Your task to perform on an android device: change notifications settings Image 0: 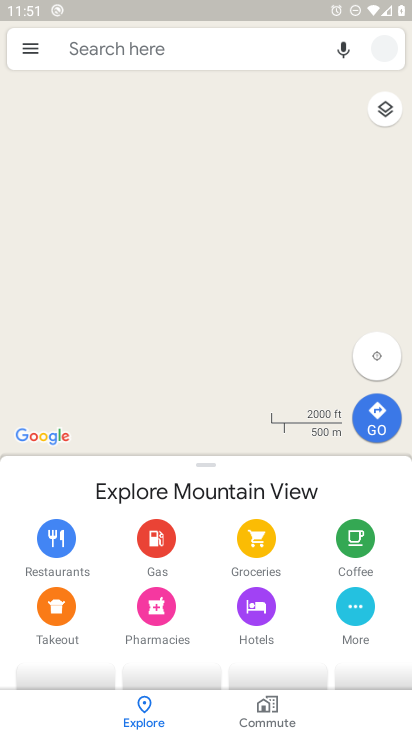
Step 0: press home button
Your task to perform on an android device: change notifications settings Image 1: 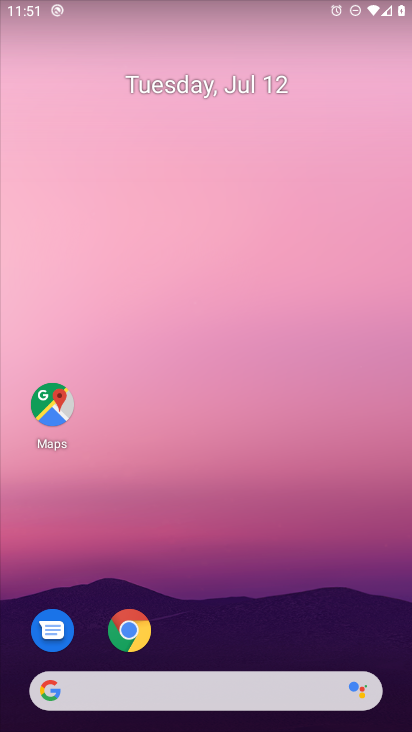
Step 1: press home button
Your task to perform on an android device: change notifications settings Image 2: 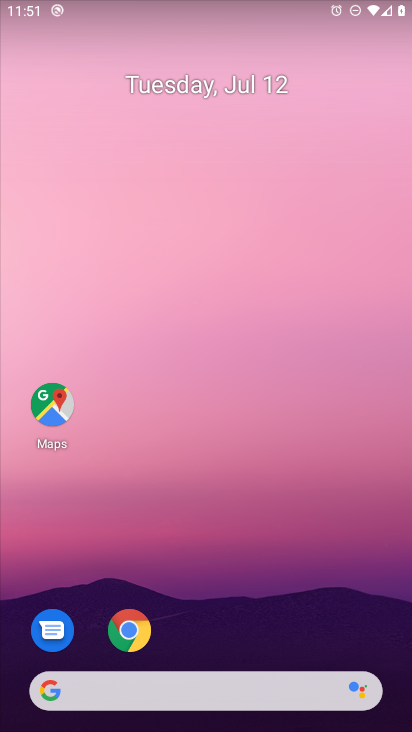
Step 2: drag from (314, 552) to (349, 80)
Your task to perform on an android device: change notifications settings Image 3: 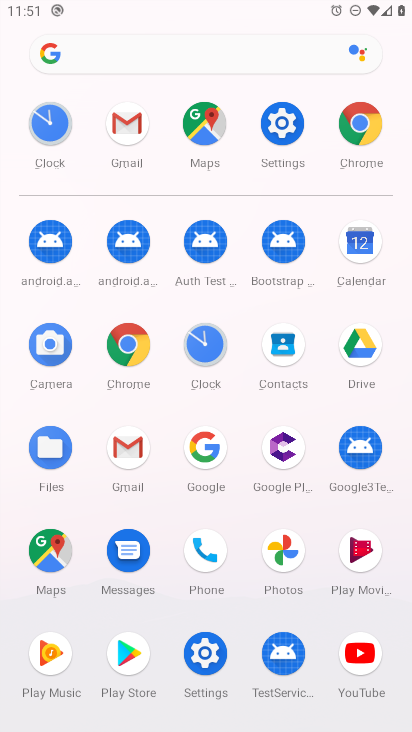
Step 3: click (282, 133)
Your task to perform on an android device: change notifications settings Image 4: 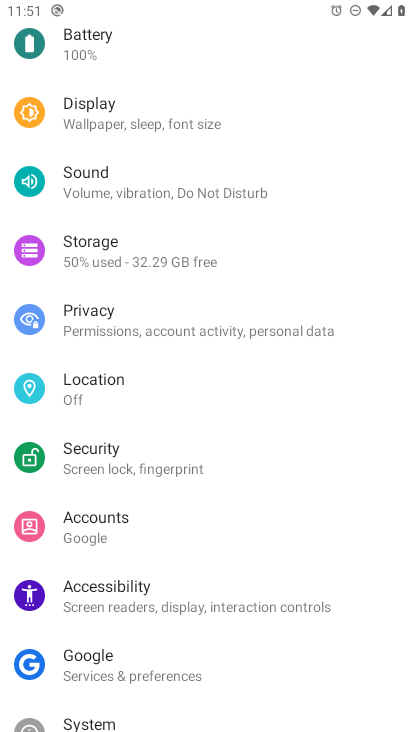
Step 4: drag from (153, 79) to (143, 498)
Your task to perform on an android device: change notifications settings Image 5: 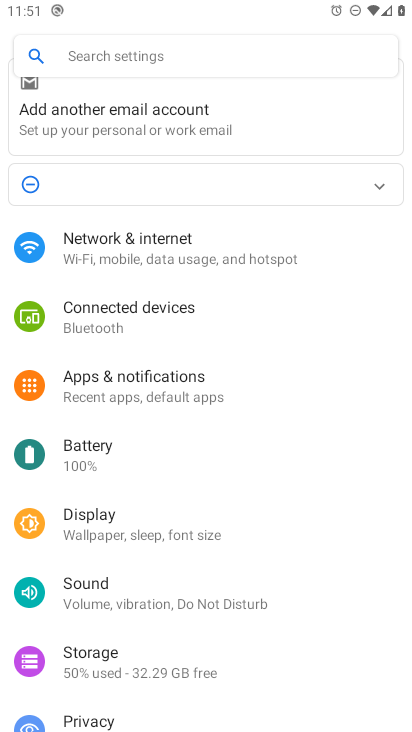
Step 5: click (103, 374)
Your task to perform on an android device: change notifications settings Image 6: 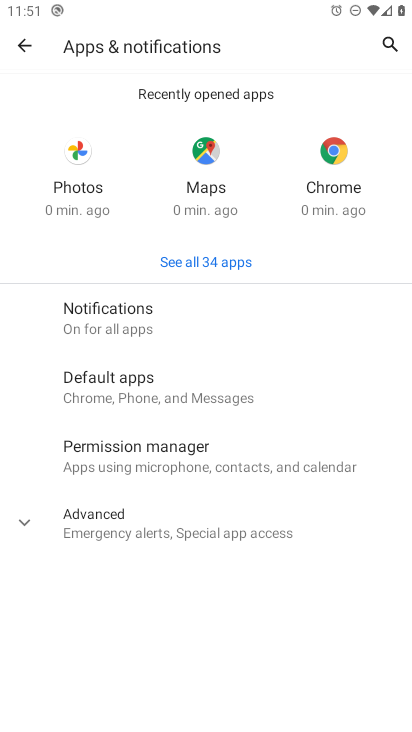
Step 6: click (109, 315)
Your task to perform on an android device: change notifications settings Image 7: 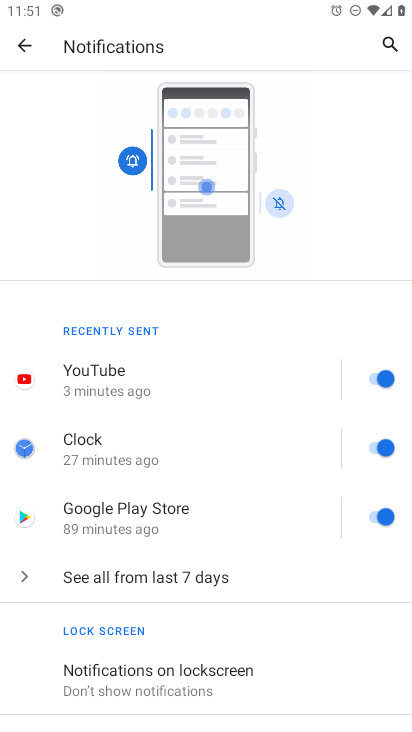
Step 7: drag from (299, 626) to (297, 265)
Your task to perform on an android device: change notifications settings Image 8: 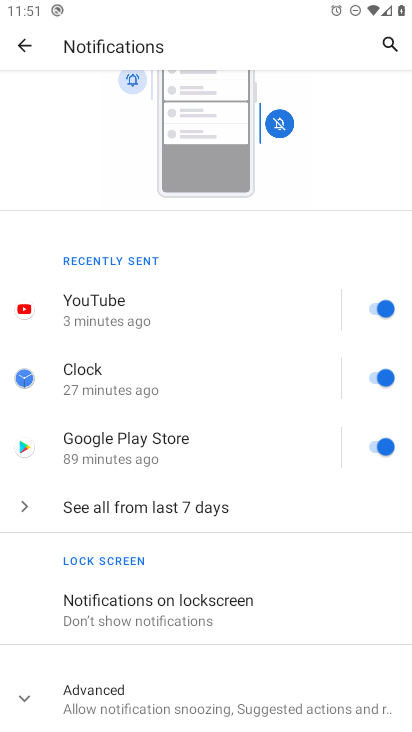
Step 8: click (135, 81)
Your task to perform on an android device: change notifications settings Image 9: 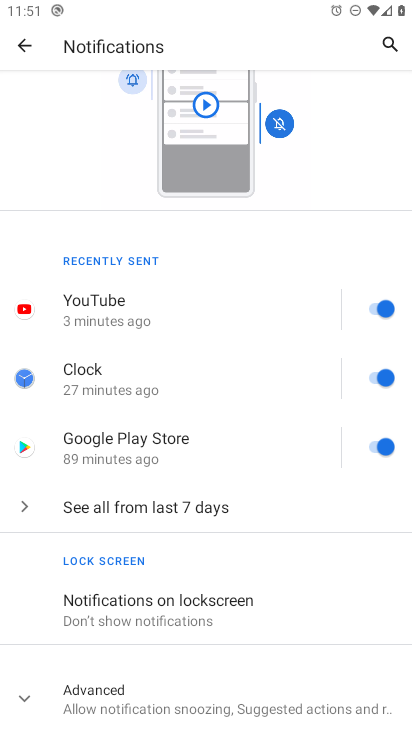
Step 9: click (131, 79)
Your task to perform on an android device: change notifications settings Image 10: 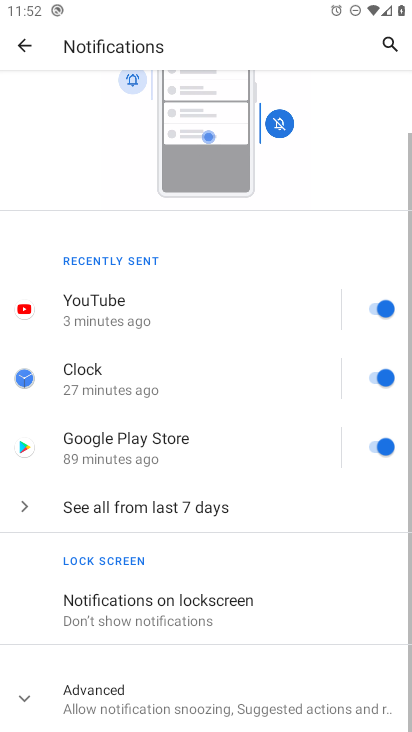
Step 10: click (286, 127)
Your task to perform on an android device: change notifications settings Image 11: 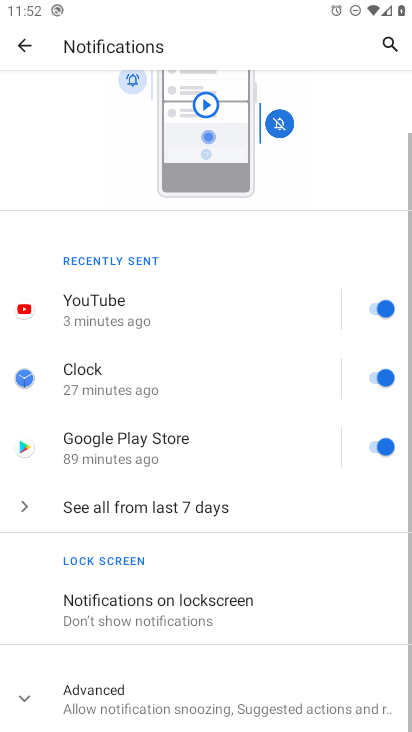
Step 11: click (277, 124)
Your task to perform on an android device: change notifications settings Image 12: 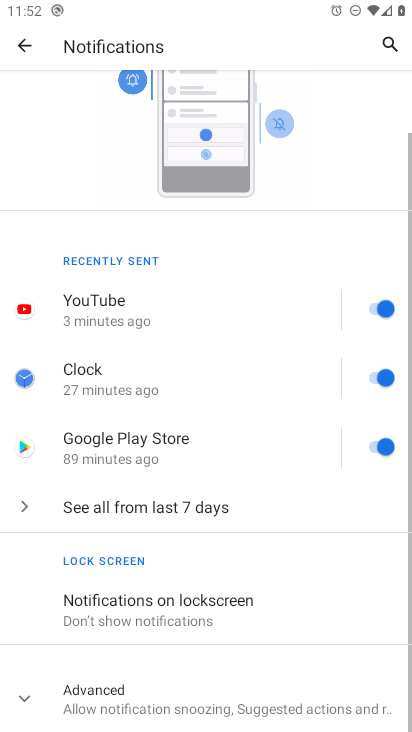
Step 12: task complete